Your task to perform on an android device: find photos in the google photos app Image 0: 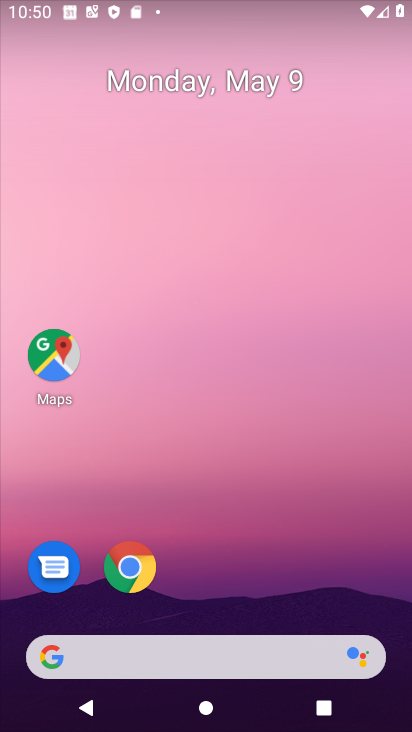
Step 0: drag from (214, 641) to (154, 64)
Your task to perform on an android device: find photos in the google photos app Image 1: 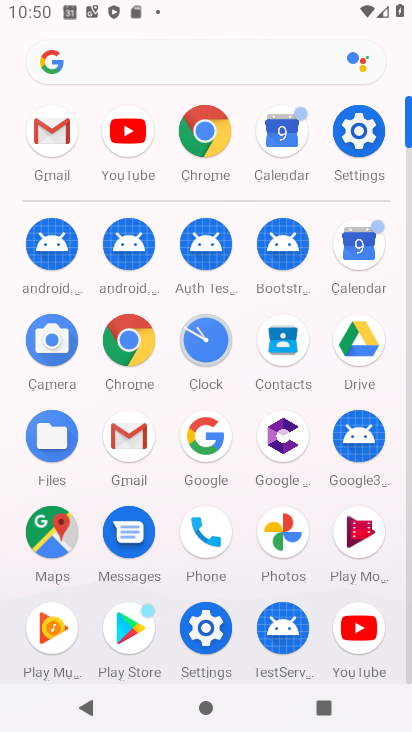
Step 1: click (269, 536)
Your task to perform on an android device: find photos in the google photos app Image 2: 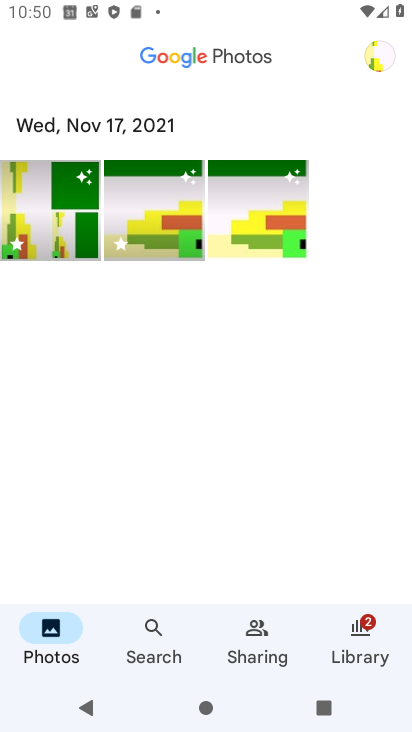
Step 2: task complete